Your task to perform on an android device: Search for pizza restaurants on Maps Image 0: 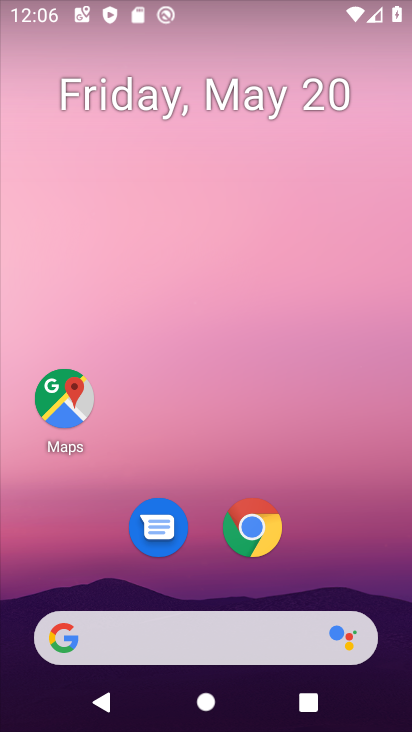
Step 0: press home button
Your task to perform on an android device: Search for pizza restaurants on Maps Image 1: 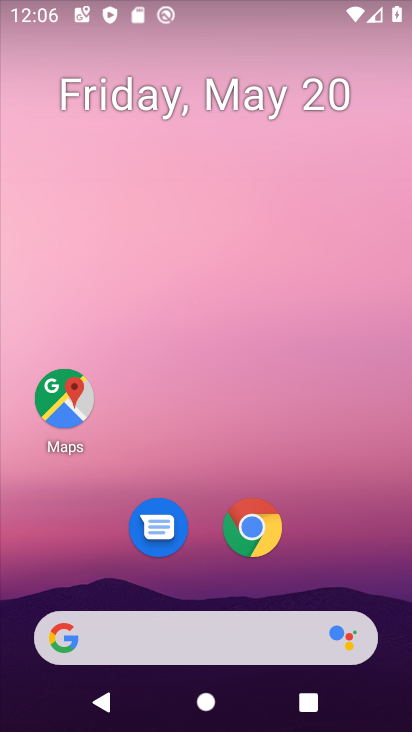
Step 1: click (76, 411)
Your task to perform on an android device: Search for pizza restaurants on Maps Image 2: 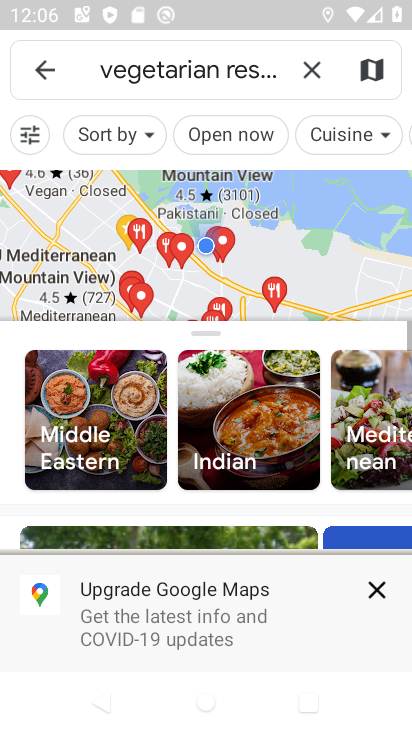
Step 2: click (301, 69)
Your task to perform on an android device: Search for pizza restaurants on Maps Image 3: 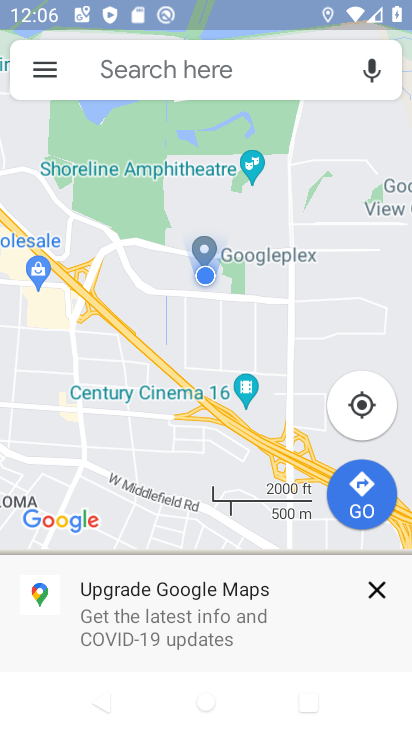
Step 3: click (244, 72)
Your task to perform on an android device: Search for pizza restaurants on Maps Image 4: 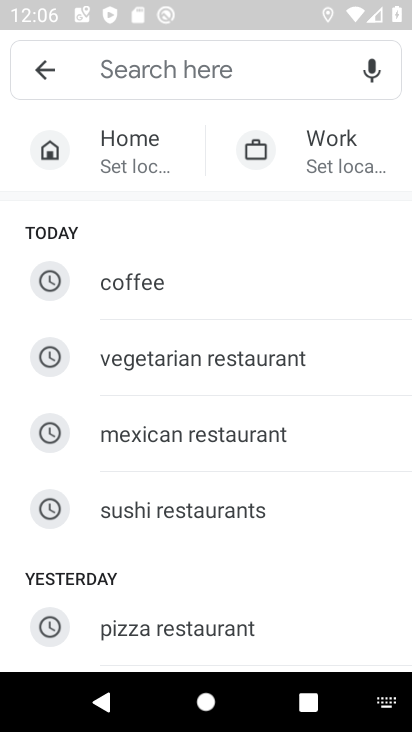
Step 4: type "pizza restaurants"
Your task to perform on an android device: Search for pizza restaurants on Maps Image 5: 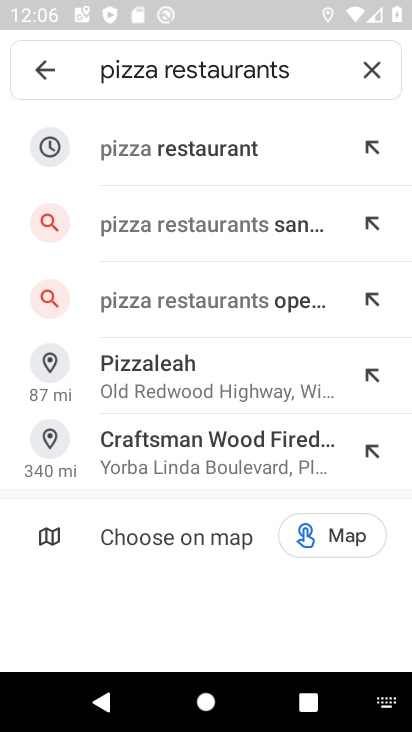
Step 5: click (147, 132)
Your task to perform on an android device: Search for pizza restaurants on Maps Image 6: 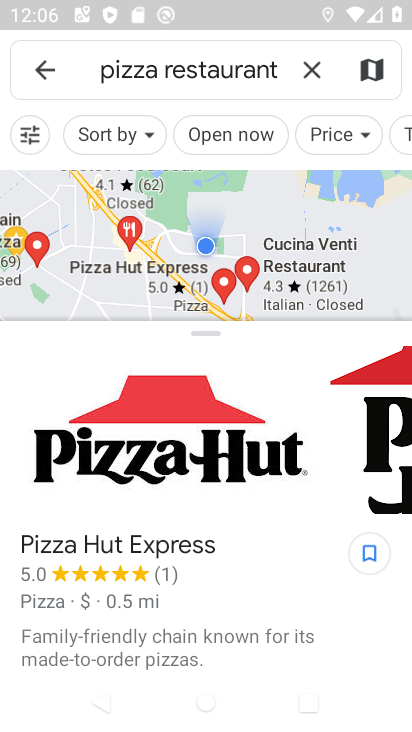
Step 6: task complete